Your task to perform on an android device: Do I have any events tomorrow? Image 0: 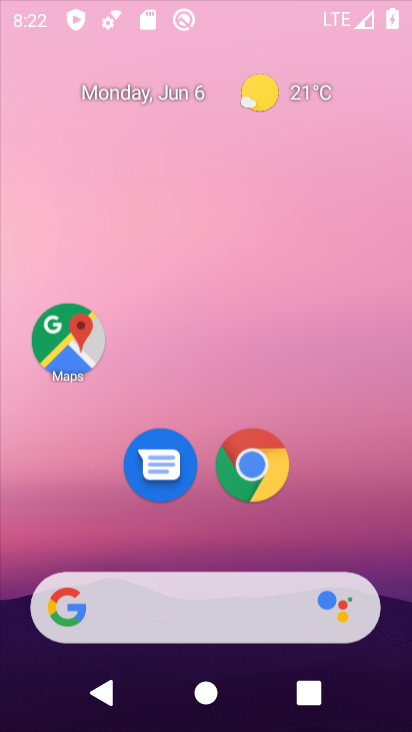
Step 0: click (202, 237)
Your task to perform on an android device: Do I have any events tomorrow? Image 1: 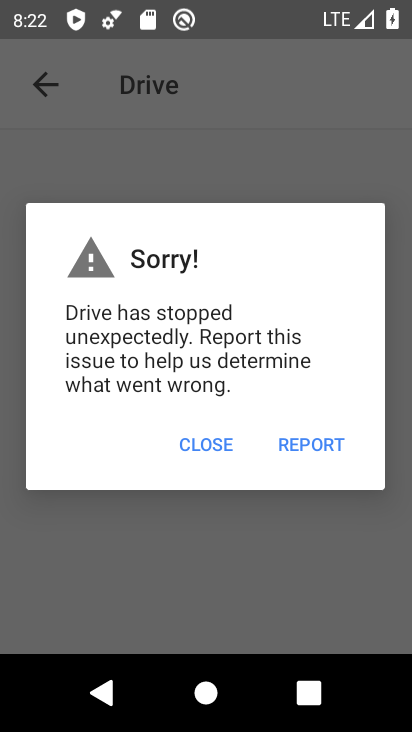
Step 1: press home button
Your task to perform on an android device: Do I have any events tomorrow? Image 2: 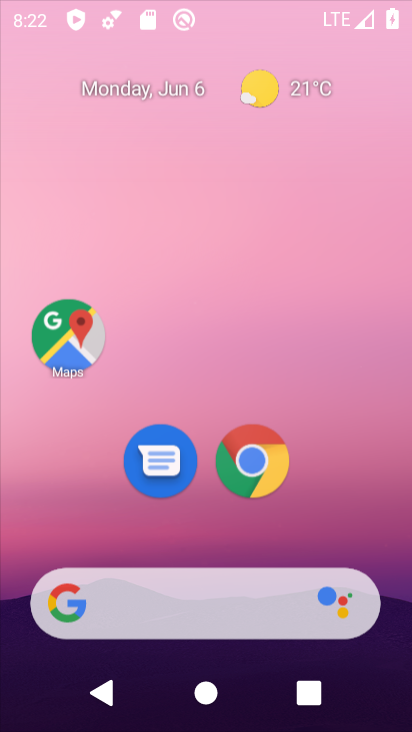
Step 2: drag from (223, 508) to (411, 176)
Your task to perform on an android device: Do I have any events tomorrow? Image 3: 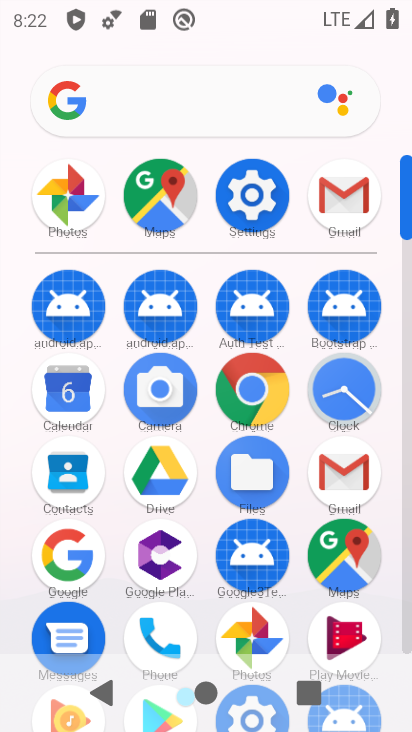
Step 3: click (60, 401)
Your task to perform on an android device: Do I have any events tomorrow? Image 4: 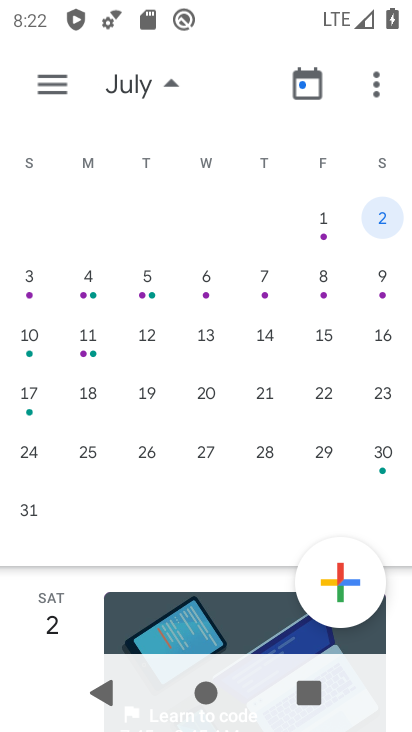
Step 4: drag from (66, 369) to (411, 304)
Your task to perform on an android device: Do I have any events tomorrow? Image 5: 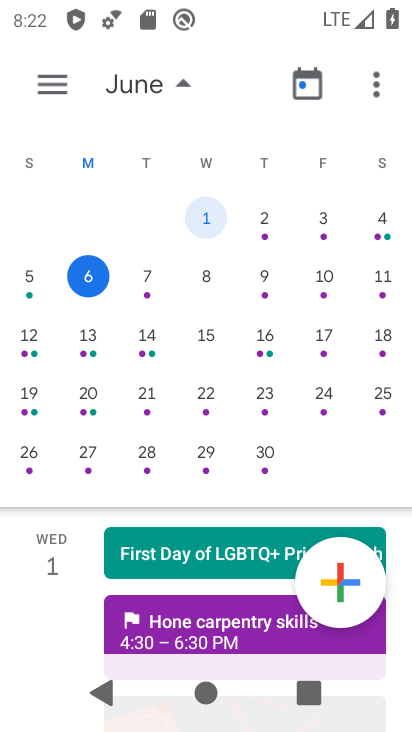
Step 5: click (139, 285)
Your task to perform on an android device: Do I have any events tomorrow? Image 6: 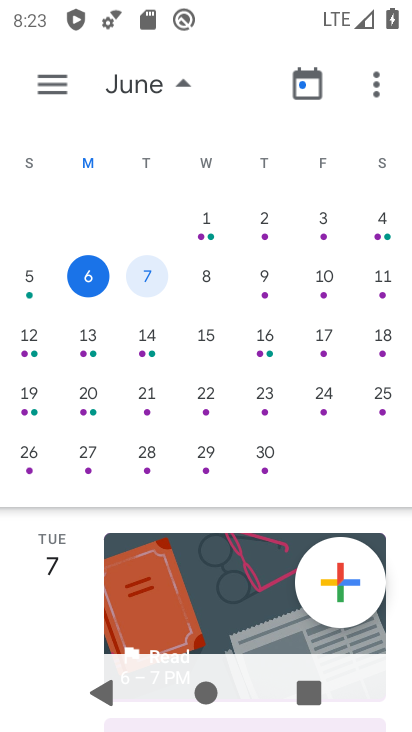
Step 6: click (127, 267)
Your task to perform on an android device: Do I have any events tomorrow? Image 7: 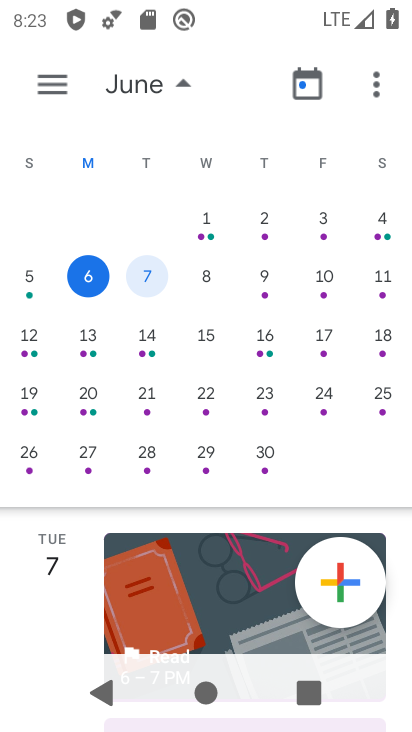
Step 7: click (143, 274)
Your task to perform on an android device: Do I have any events tomorrow? Image 8: 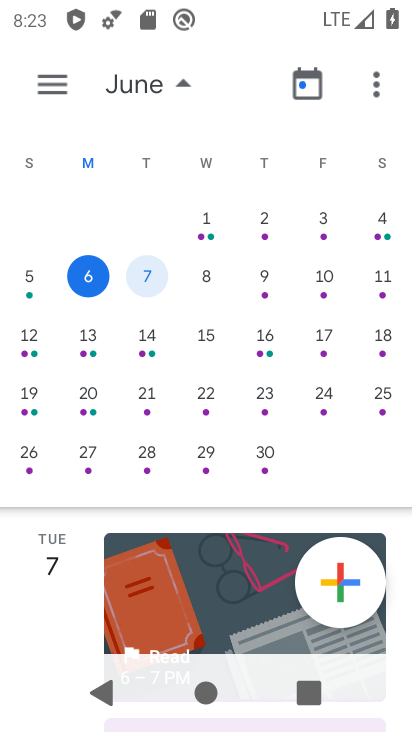
Step 8: task complete